Your task to perform on an android device: Search for Italian restaurants on Maps Image 0: 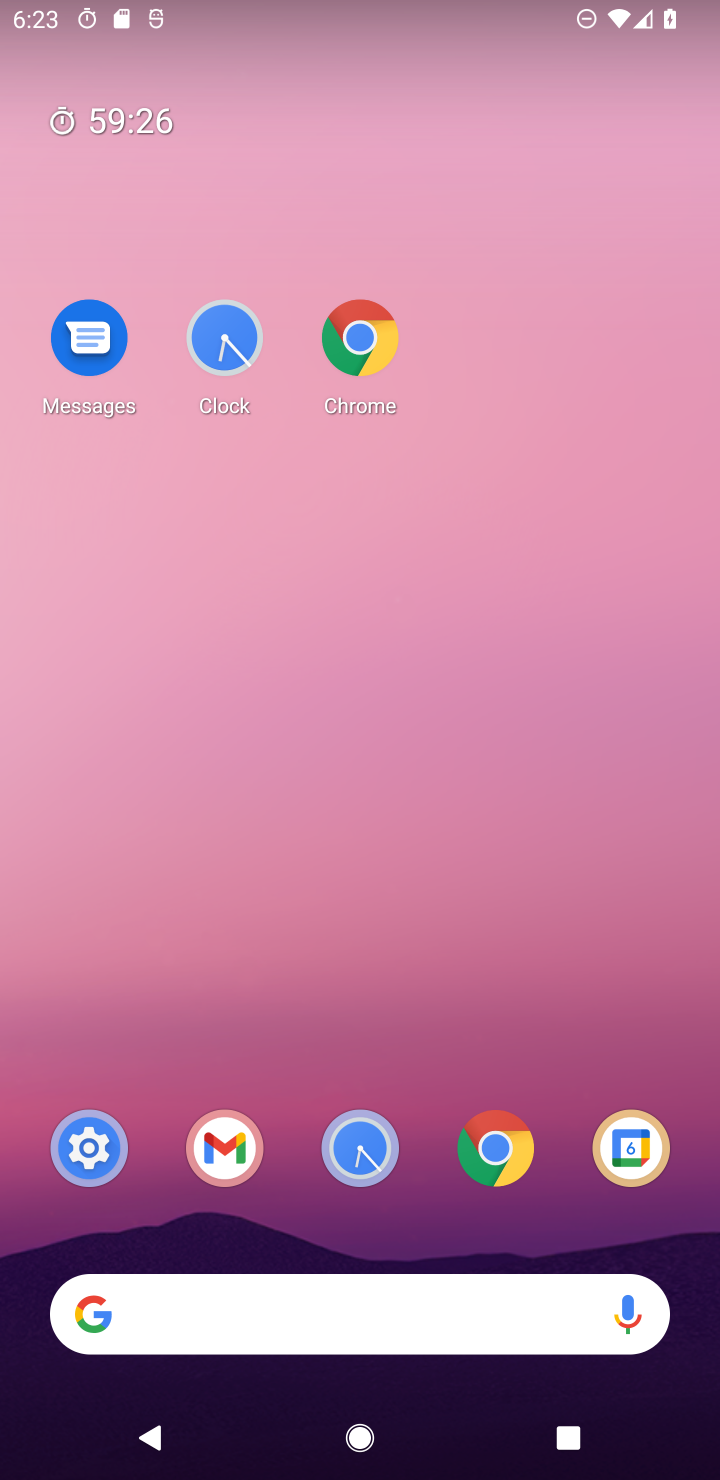
Step 0: drag from (405, 1118) to (337, 50)
Your task to perform on an android device: Search for Italian restaurants on Maps Image 1: 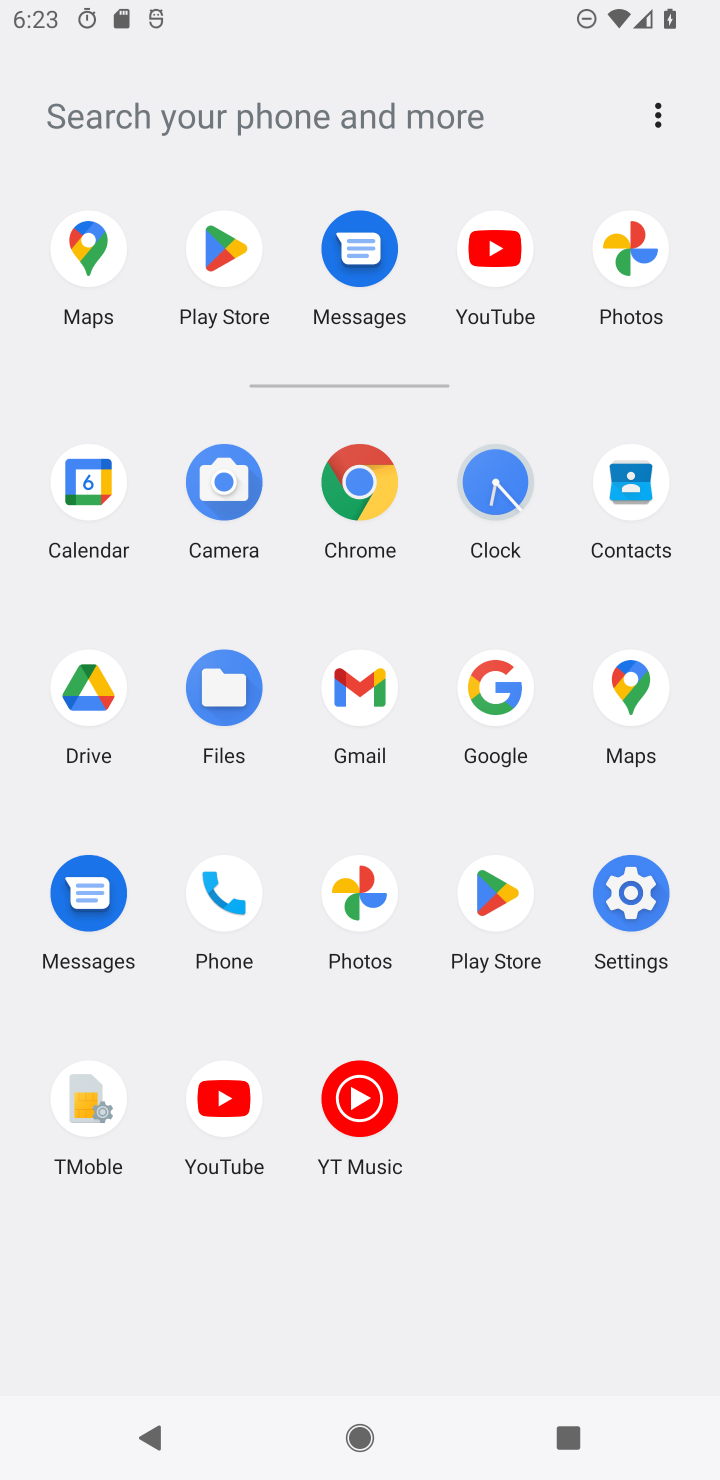
Step 1: click (611, 690)
Your task to perform on an android device: Search for Italian restaurants on Maps Image 2: 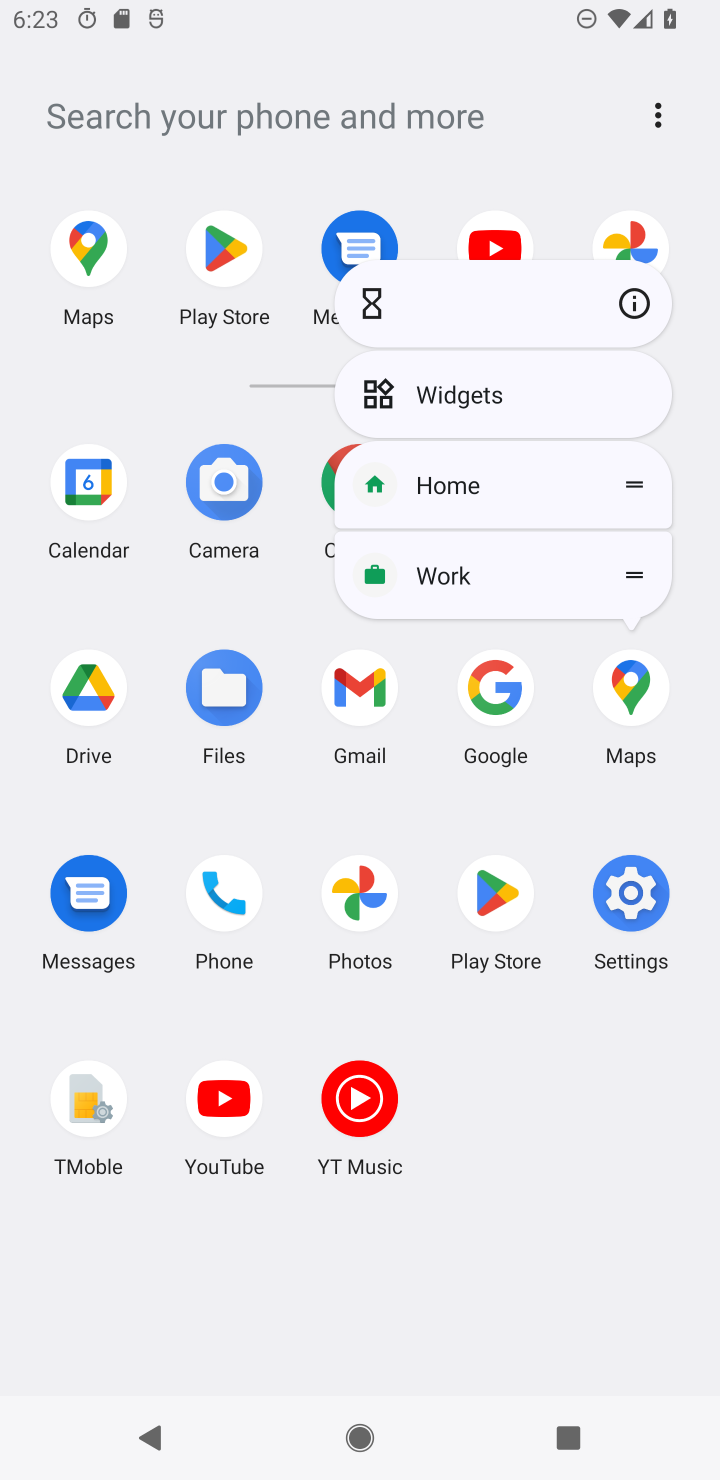
Step 2: click (627, 309)
Your task to perform on an android device: Search for Italian restaurants on Maps Image 3: 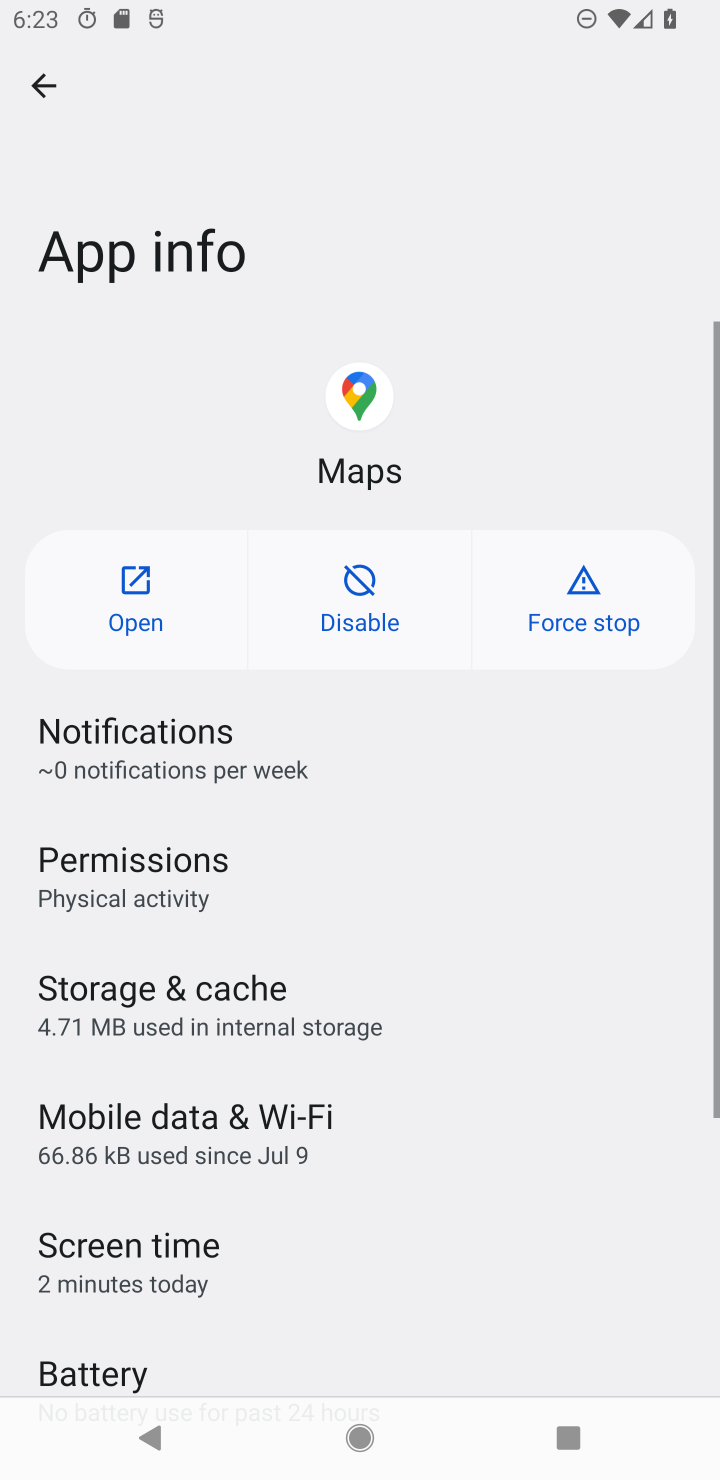
Step 3: click (151, 580)
Your task to perform on an android device: Search for Italian restaurants on Maps Image 4: 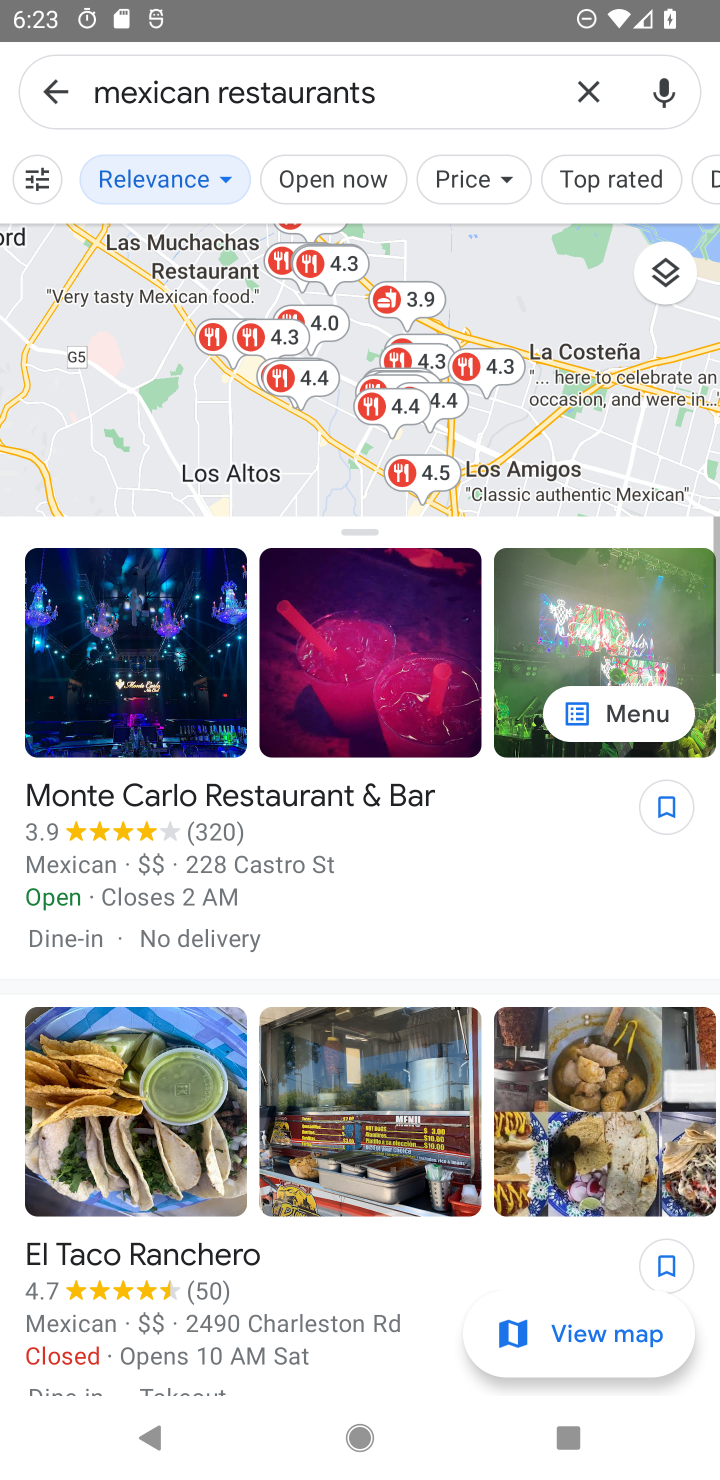
Step 4: click (587, 95)
Your task to perform on an android device: Search for Italian restaurants on Maps Image 5: 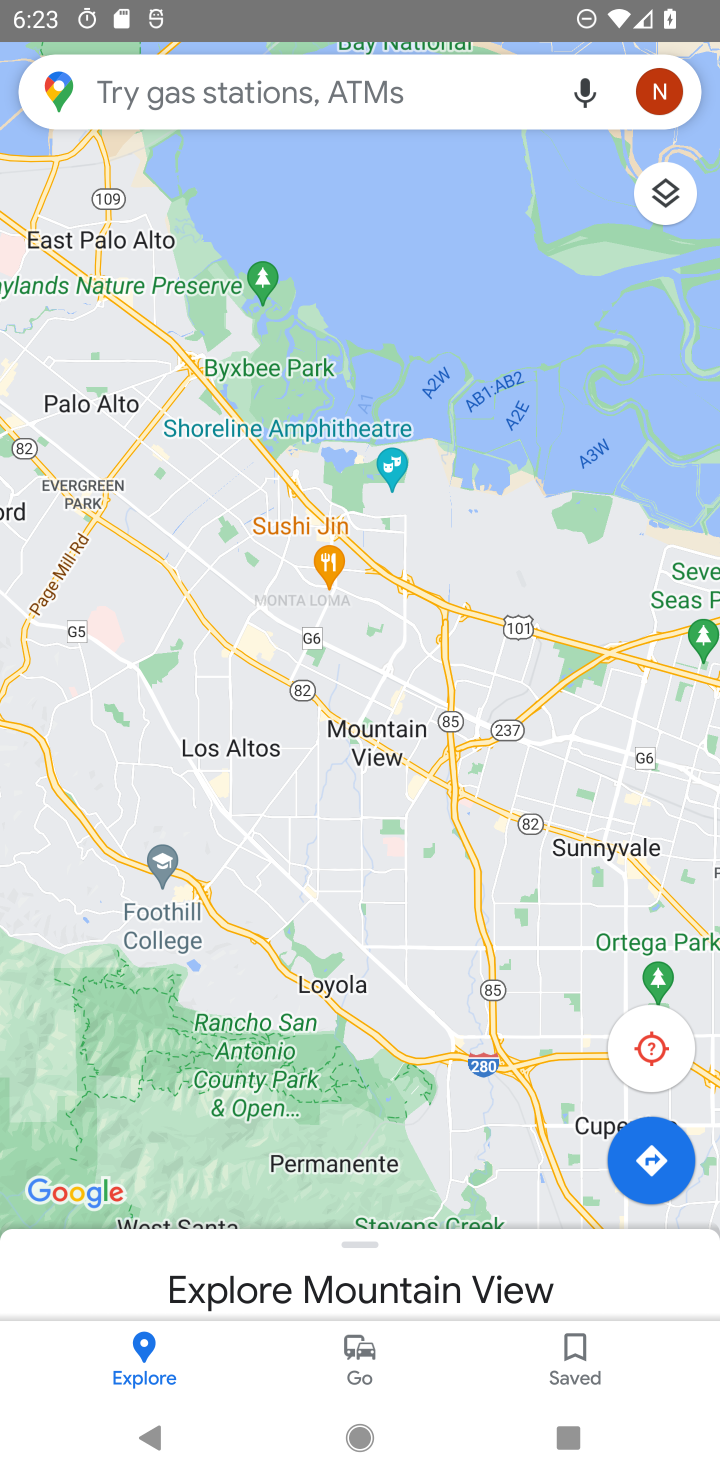
Step 5: click (364, 104)
Your task to perform on an android device: Search for Italian restaurants on Maps Image 6: 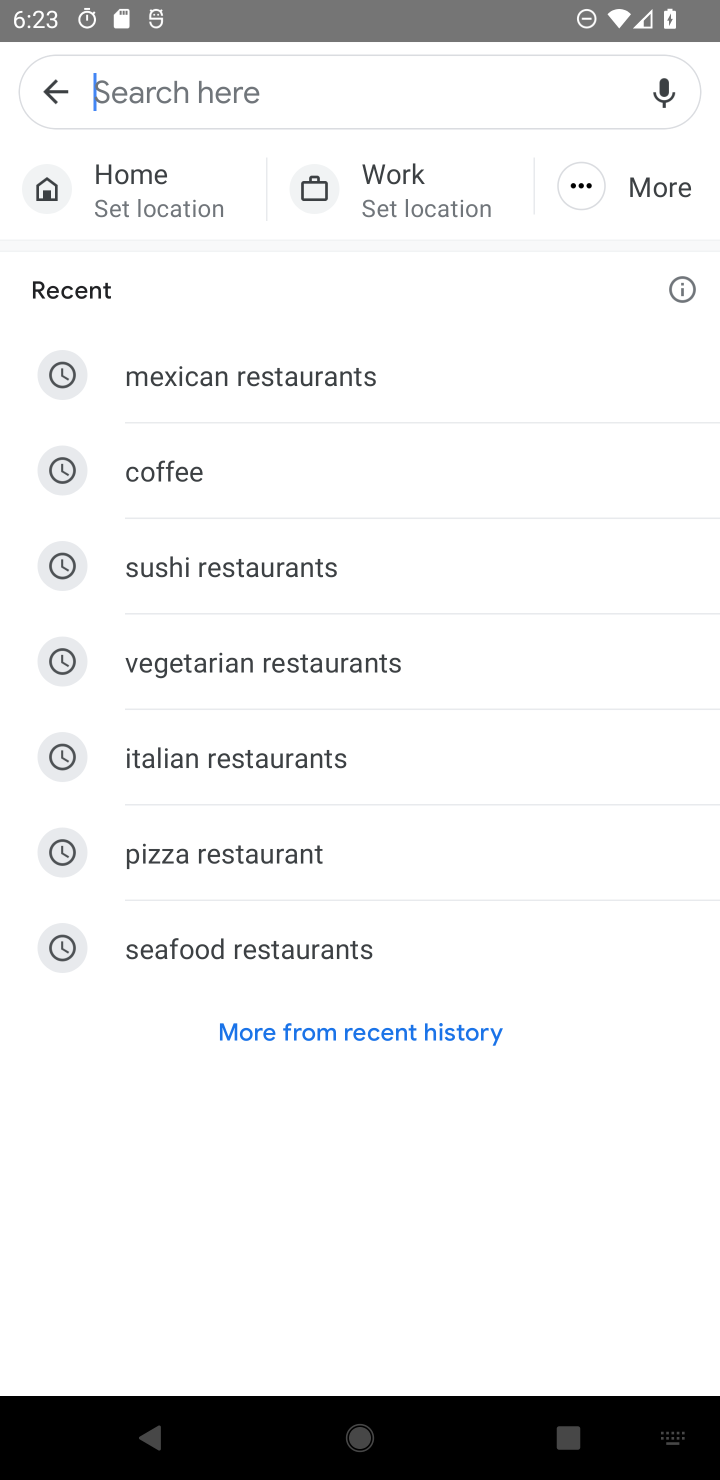
Step 6: click (286, 755)
Your task to perform on an android device: Search for Italian restaurants on Maps Image 7: 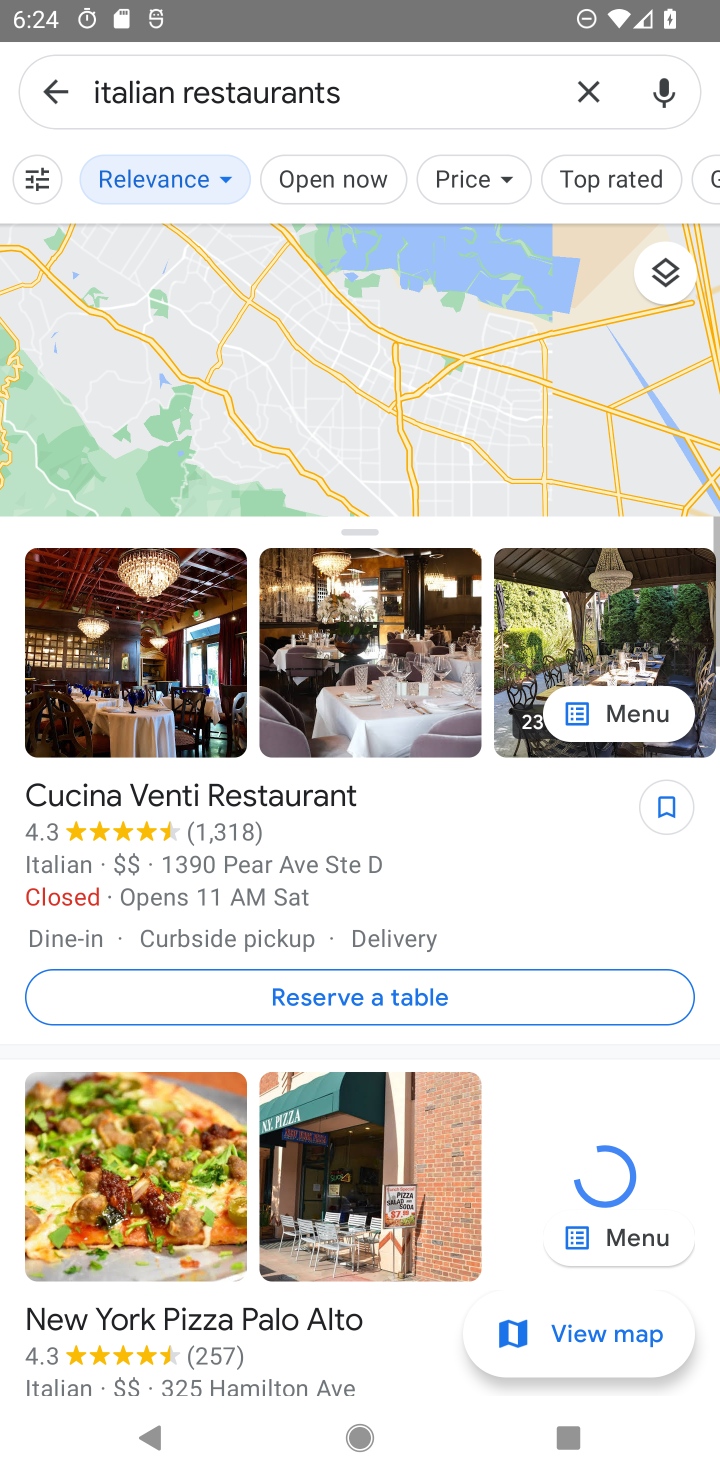
Step 7: task complete